Your task to perform on an android device: Open the Play Movies app and select the watchlist tab. Image 0: 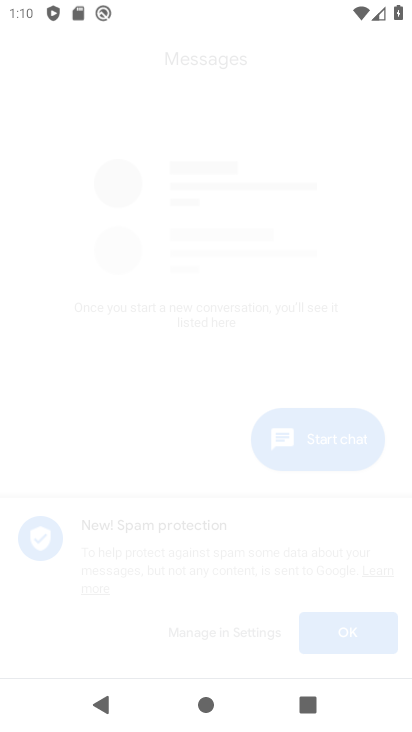
Step 0: drag from (204, 546) to (278, 2)
Your task to perform on an android device: Open the Play Movies app and select the watchlist tab. Image 1: 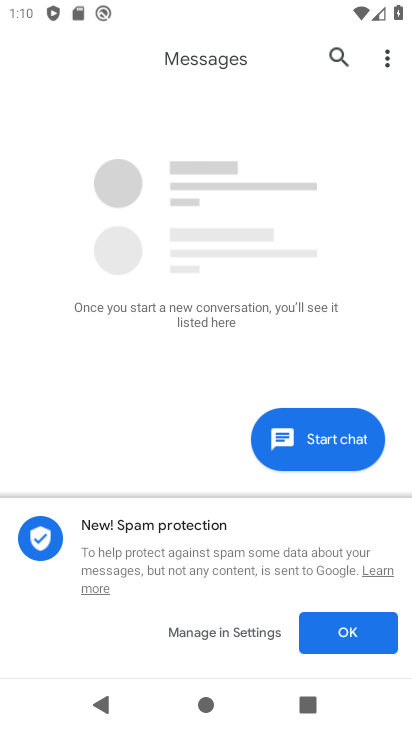
Step 1: press back button
Your task to perform on an android device: Open the Play Movies app and select the watchlist tab. Image 2: 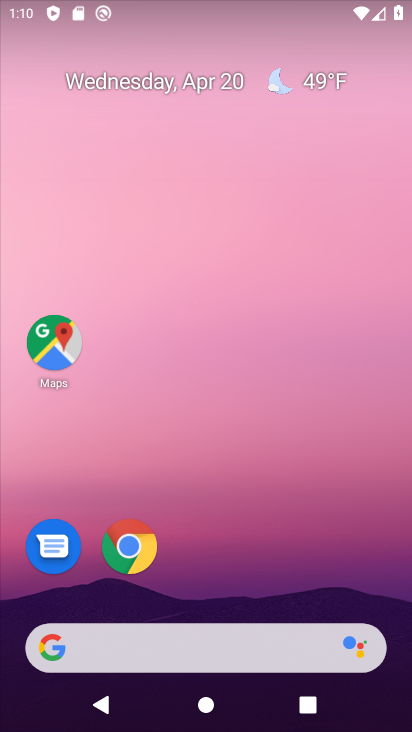
Step 2: drag from (278, 529) to (293, 0)
Your task to perform on an android device: Open the Play Movies app and select the watchlist tab. Image 3: 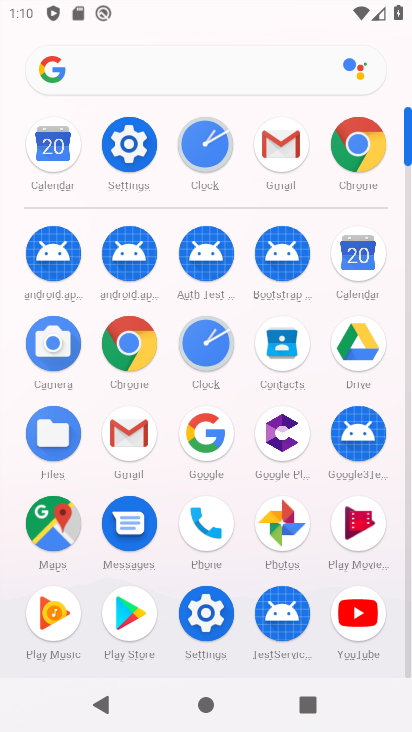
Step 3: click (367, 525)
Your task to perform on an android device: Open the Play Movies app and select the watchlist tab. Image 4: 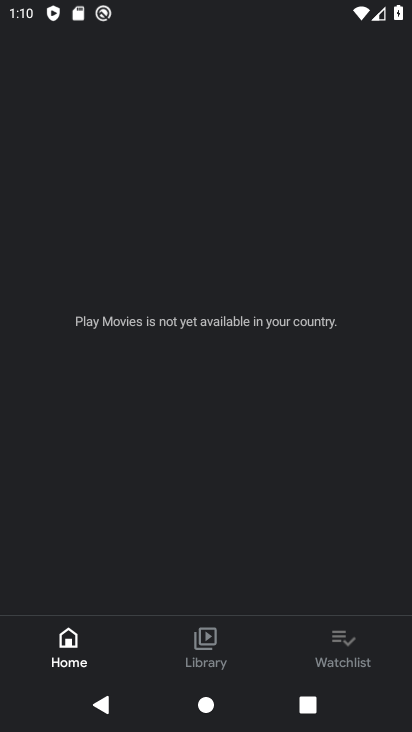
Step 4: click (335, 650)
Your task to perform on an android device: Open the Play Movies app and select the watchlist tab. Image 5: 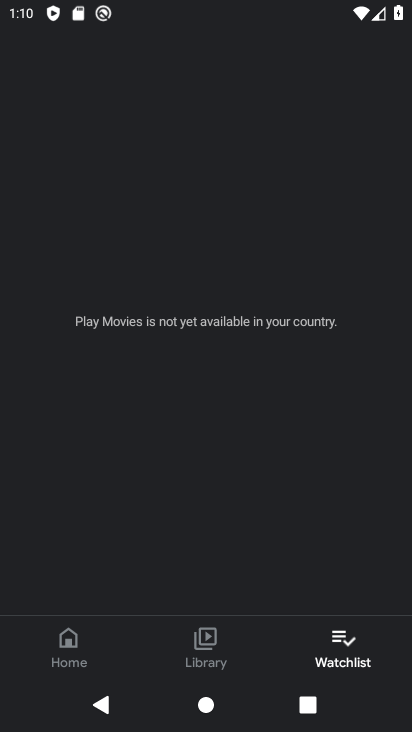
Step 5: task complete